Your task to perform on an android device: stop showing notifications on the lock screen Image 0: 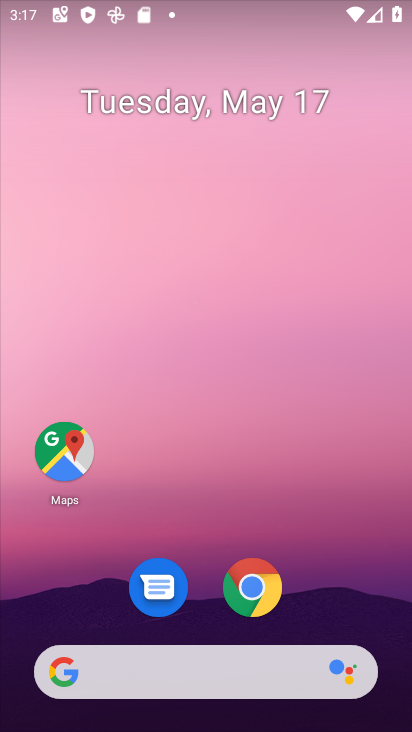
Step 0: drag from (271, 641) to (253, 62)
Your task to perform on an android device: stop showing notifications on the lock screen Image 1: 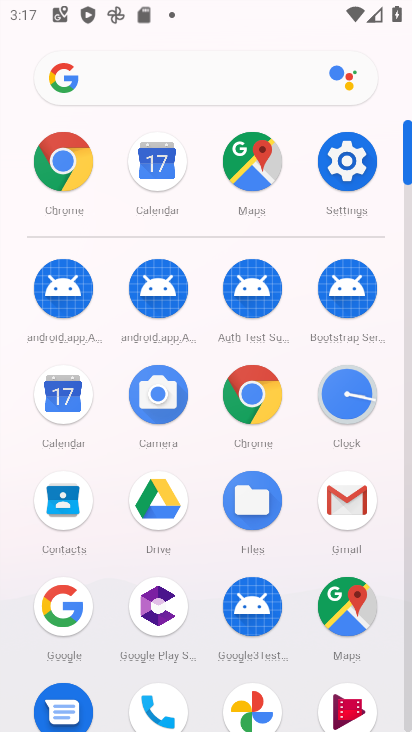
Step 1: click (331, 157)
Your task to perform on an android device: stop showing notifications on the lock screen Image 2: 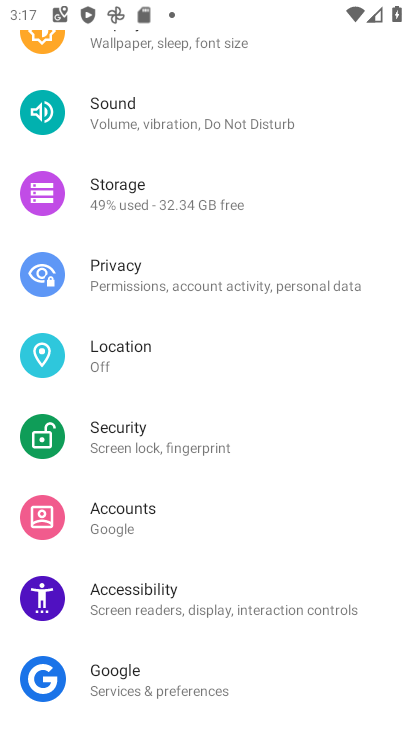
Step 2: drag from (240, 693) to (275, 162)
Your task to perform on an android device: stop showing notifications on the lock screen Image 3: 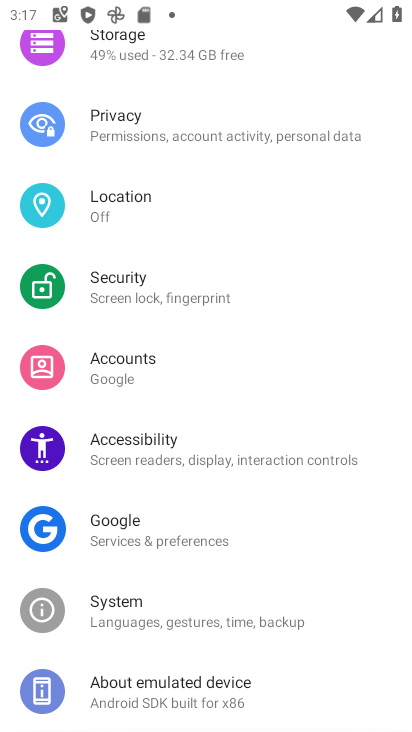
Step 3: drag from (280, 182) to (278, 710)
Your task to perform on an android device: stop showing notifications on the lock screen Image 4: 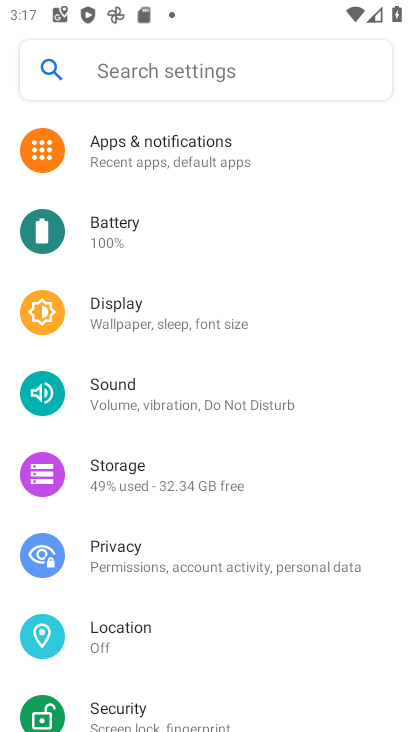
Step 4: drag from (254, 282) to (262, 627)
Your task to perform on an android device: stop showing notifications on the lock screen Image 5: 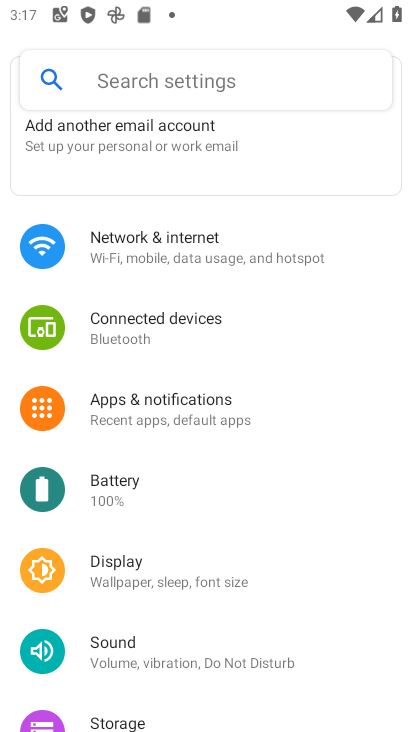
Step 5: click (159, 413)
Your task to perform on an android device: stop showing notifications on the lock screen Image 6: 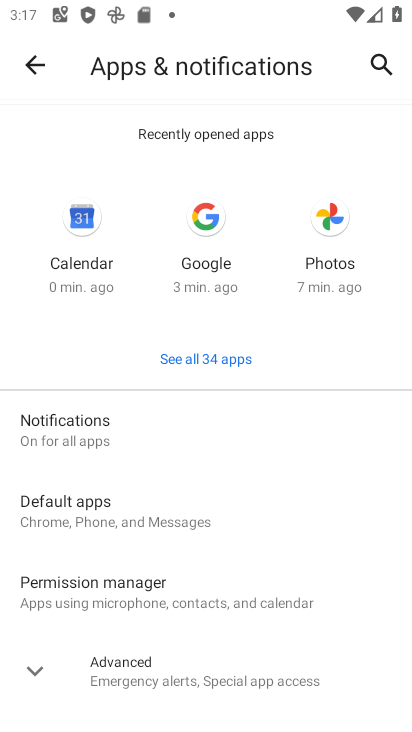
Step 6: drag from (265, 652) to (309, 293)
Your task to perform on an android device: stop showing notifications on the lock screen Image 7: 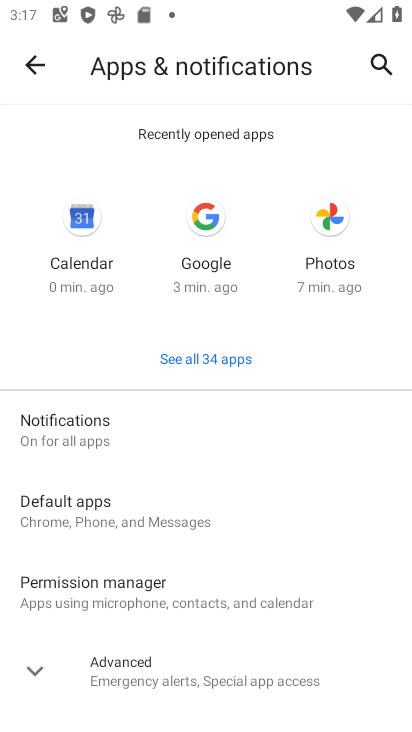
Step 7: click (143, 418)
Your task to perform on an android device: stop showing notifications on the lock screen Image 8: 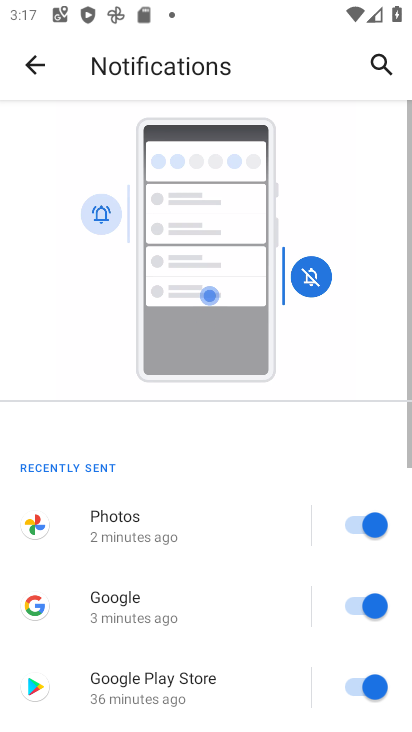
Step 8: drag from (229, 654) to (227, 111)
Your task to perform on an android device: stop showing notifications on the lock screen Image 9: 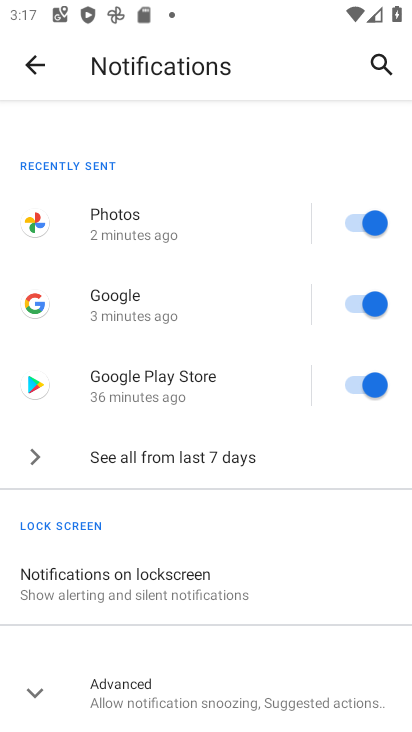
Step 9: click (169, 569)
Your task to perform on an android device: stop showing notifications on the lock screen Image 10: 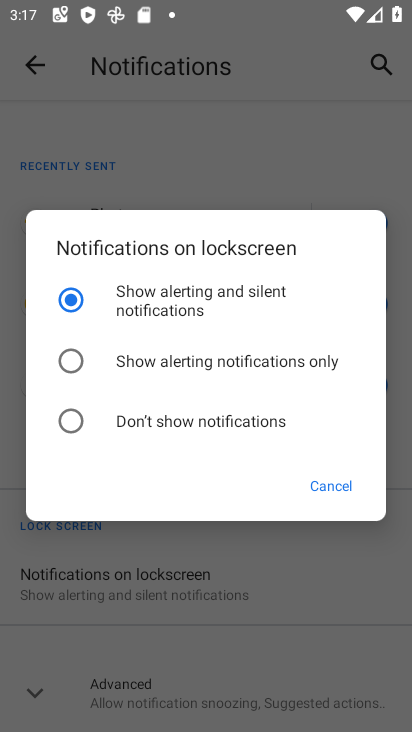
Step 10: click (160, 423)
Your task to perform on an android device: stop showing notifications on the lock screen Image 11: 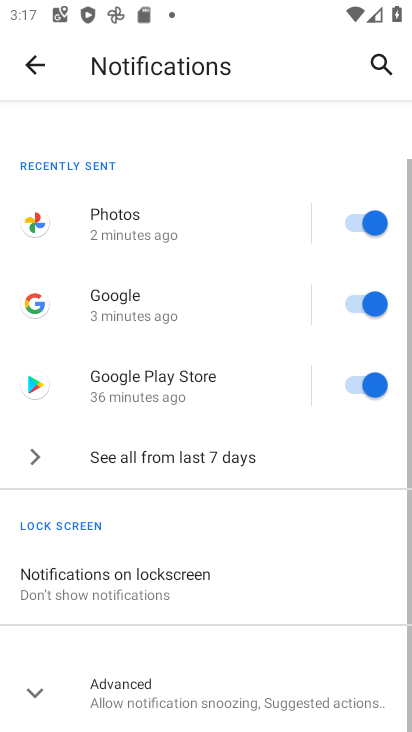
Step 11: task complete